Your task to perform on an android device: check storage Image 0: 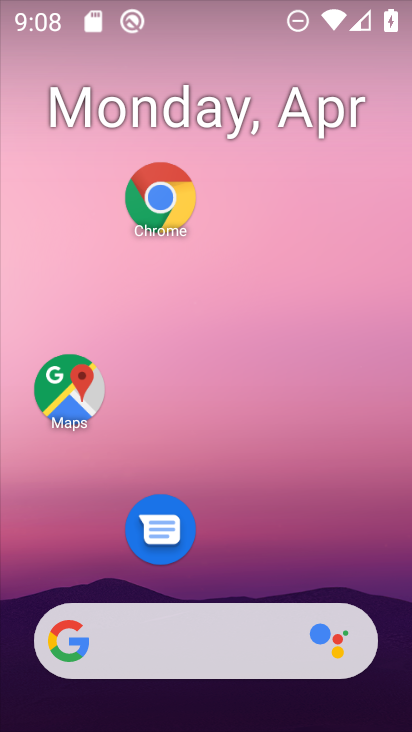
Step 0: drag from (250, 421) to (324, 25)
Your task to perform on an android device: check storage Image 1: 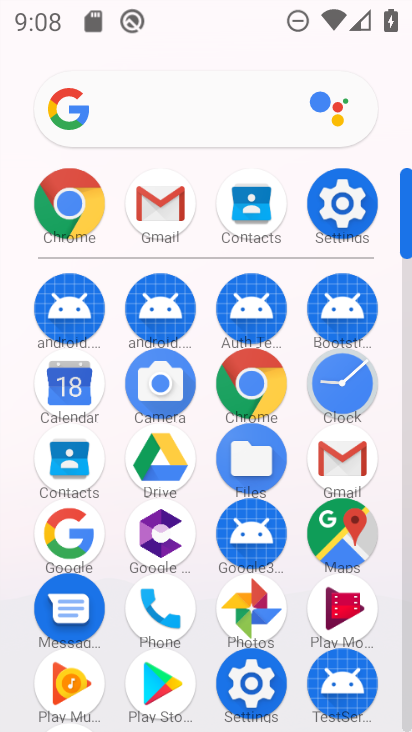
Step 1: click (343, 192)
Your task to perform on an android device: check storage Image 2: 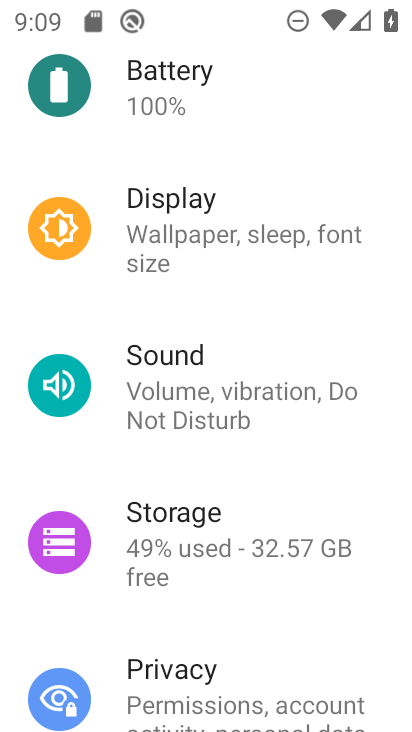
Step 2: click (187, 539)
Your task to perform on an android device: check storage Image 3: 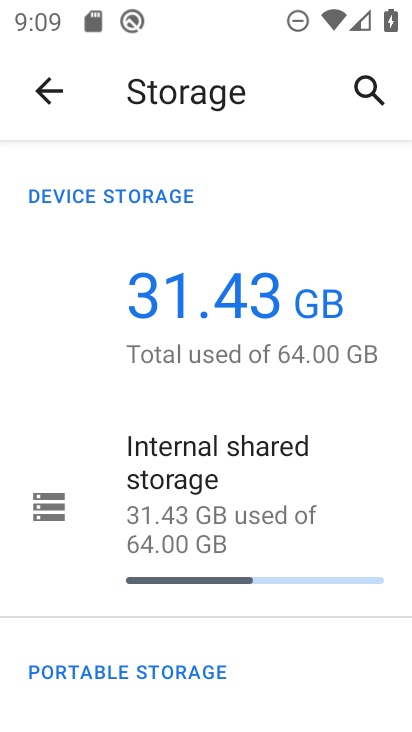
Step 3: task complete